Your task to perform on an android device: show emergency info Image 0: 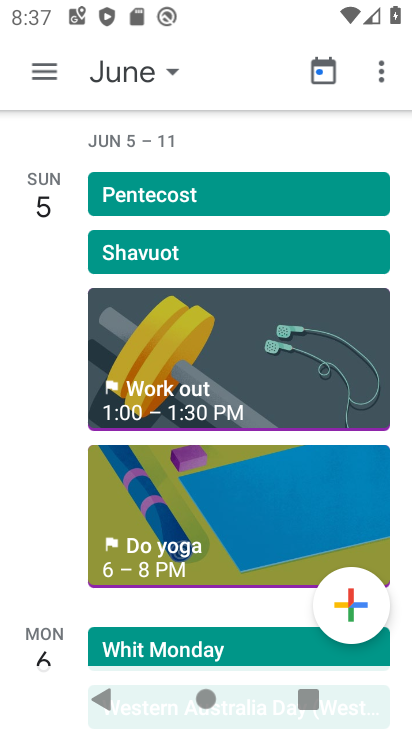
Step 0: press home button
Your task to perform on an android device: show emergency info Image 1: 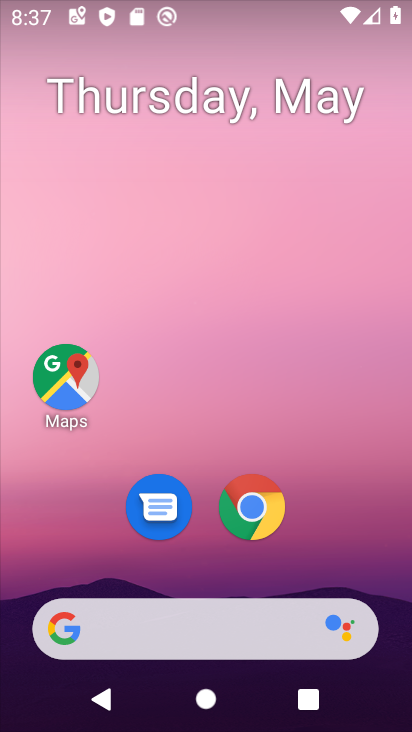
Step 1: drag from (368, 573) to (363, 97)
Your task to perform on an android device: show emergency info Image 2: 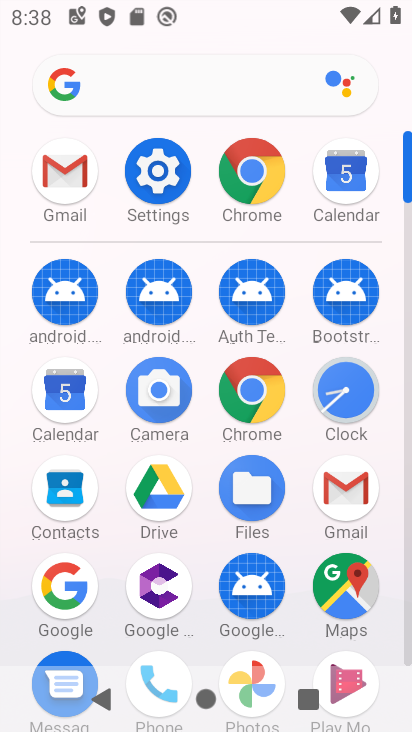
Step 2: click (164, 180)
Your task to perform on an android device: show emergency info Image 3: 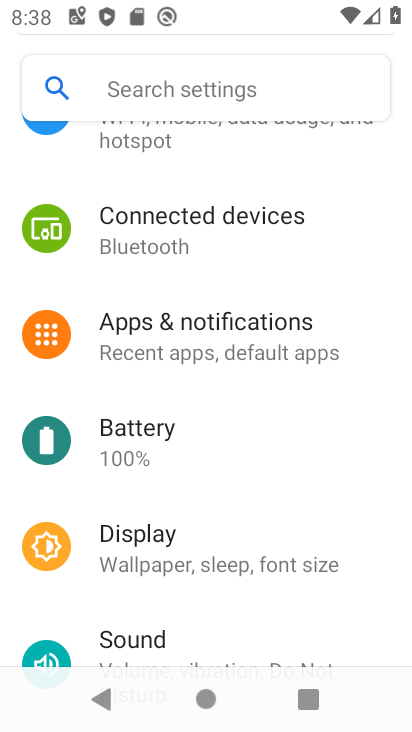
Step 3: drag from (295, 602) to (311, 343)
Your task to perform on an android device: show emergency info Image 4: 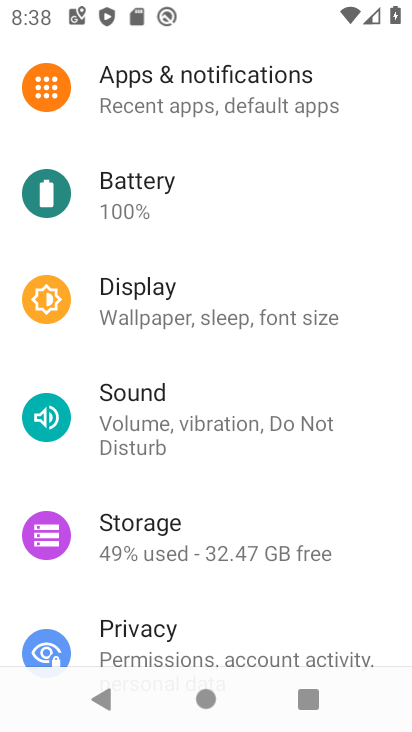
Step 4: drag from (290, 602) to (259, 254)
Your task to perform on an android device: show emergency info Image 5: 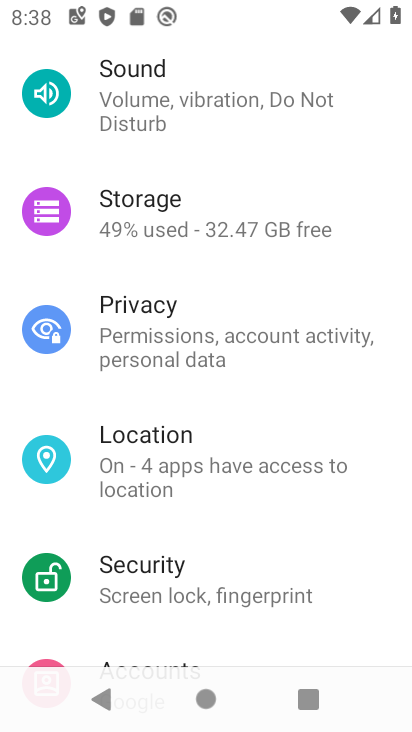
Step 5: drag from (342, 633) to (314, 203)
Your task to perform on an android device: show emergency info Image 6: 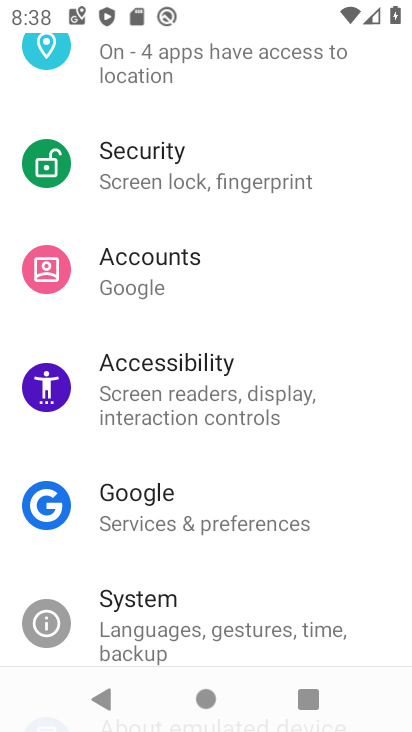
Step 6: drag from (325, 546) to (326, 161)
Your task to perform on an android device: show emergency info Image 7: 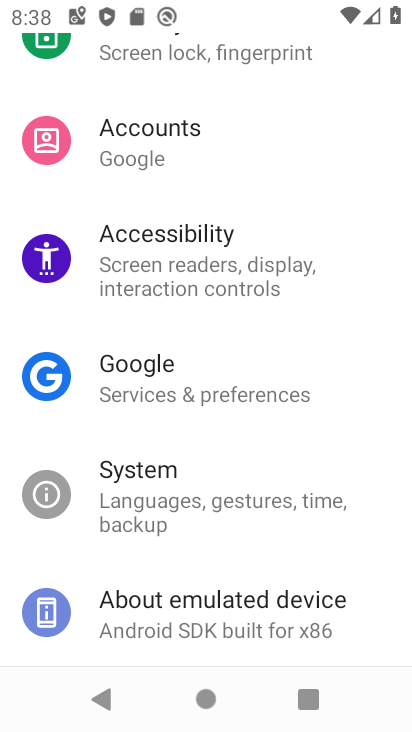
Step 7: drag from (293, 216) to (273, 515)
Your task to perform on an android device: show emergency info Image 8: 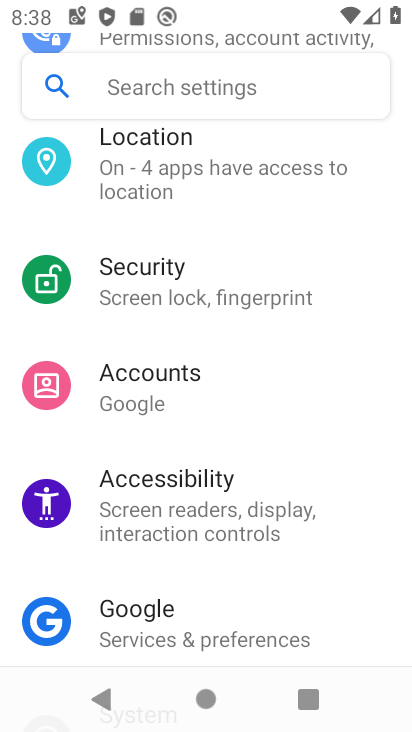
Step 8: drag from (261, 267) to (244, 547)
Your task to perform on an android device: show emergency info Image 9: 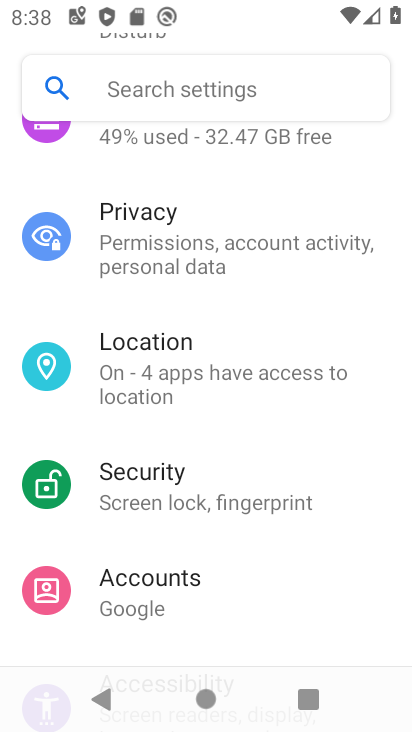
Step 9: drag from (261, 596) to (241, 152)
Your task to perform on an android device: show emergency info Image 10: 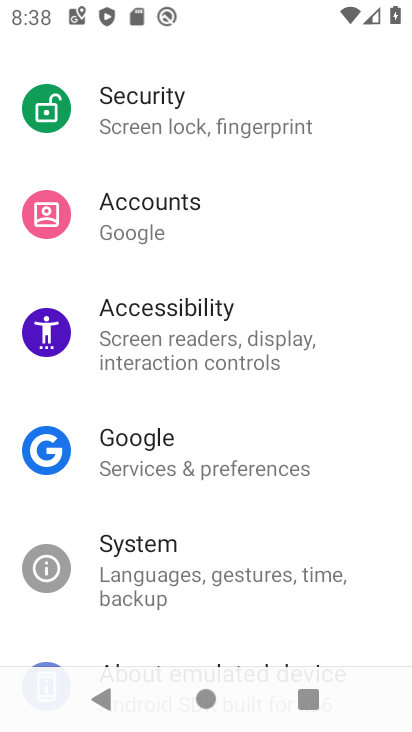
Step 10: drag from (252, 593) to (256, 153)
Your task to perform on an android device: show emergency info Image 11: 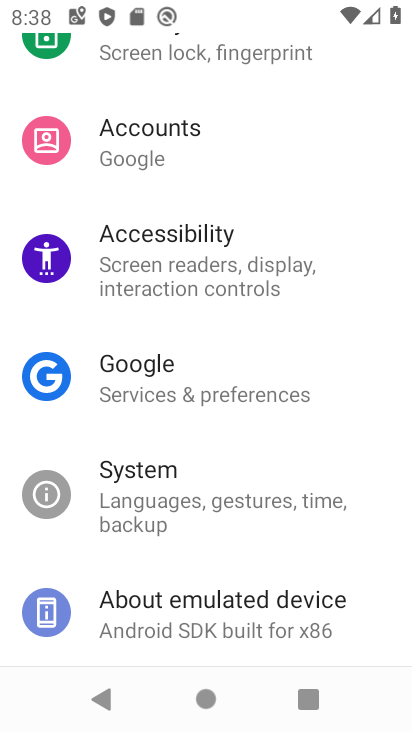
Step 11: click (216, 611)
Your task to perform on an android device: show emergency info Image 12: 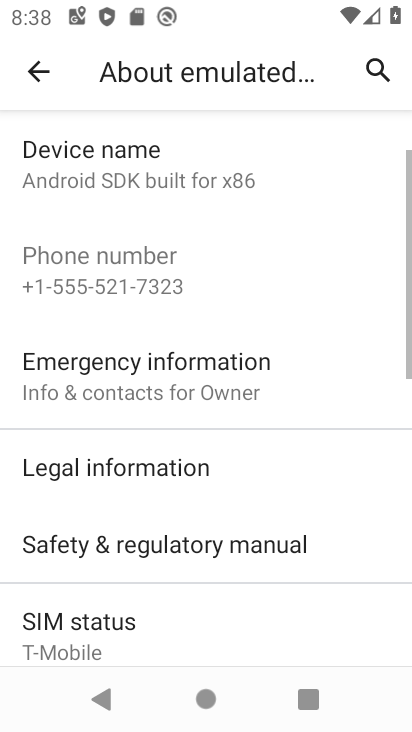
Step 12: click (224, 360)
Your task to perform on an android device: show emergency info Image 13: 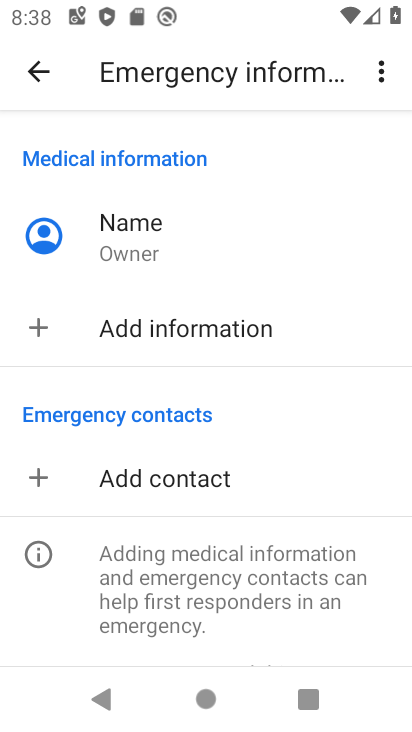
Step 13: task complete